Your task to perform on an android device: turn vacation reply on in the gmail app Image 0: 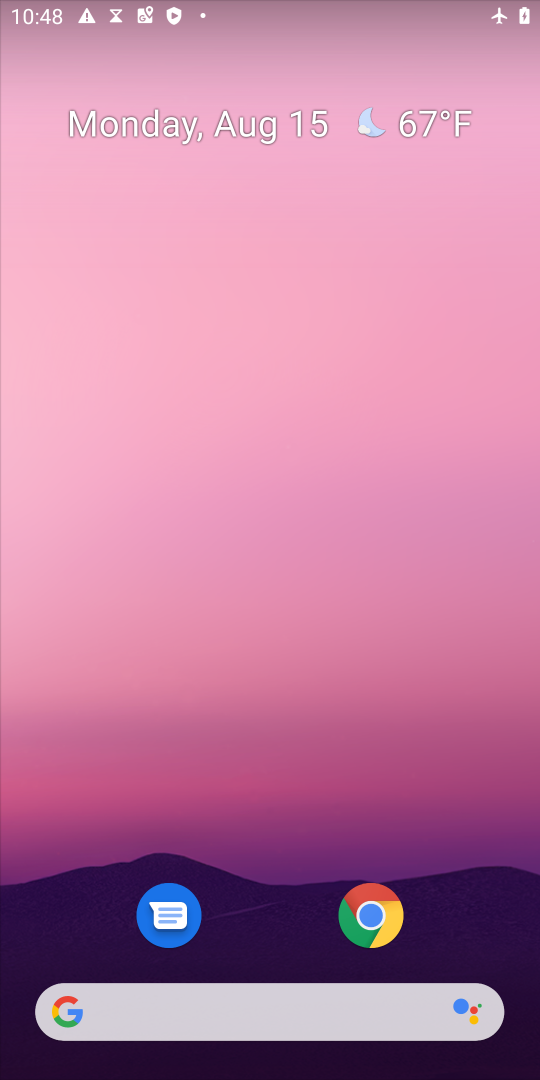
Step 0: press home button
Your task to perform on an android device: turn vacation reply on in the gmail app Image 1: 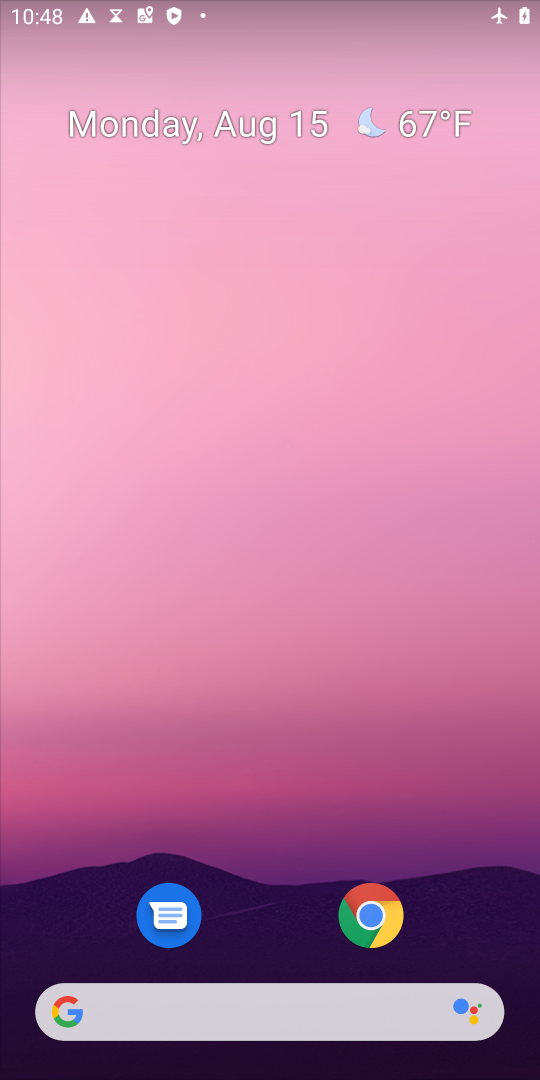
Step 1: drag from (261, 946) to (425, 166)
Your task to perform on an android device: turn vacation reply on in the gmail app Image 2: 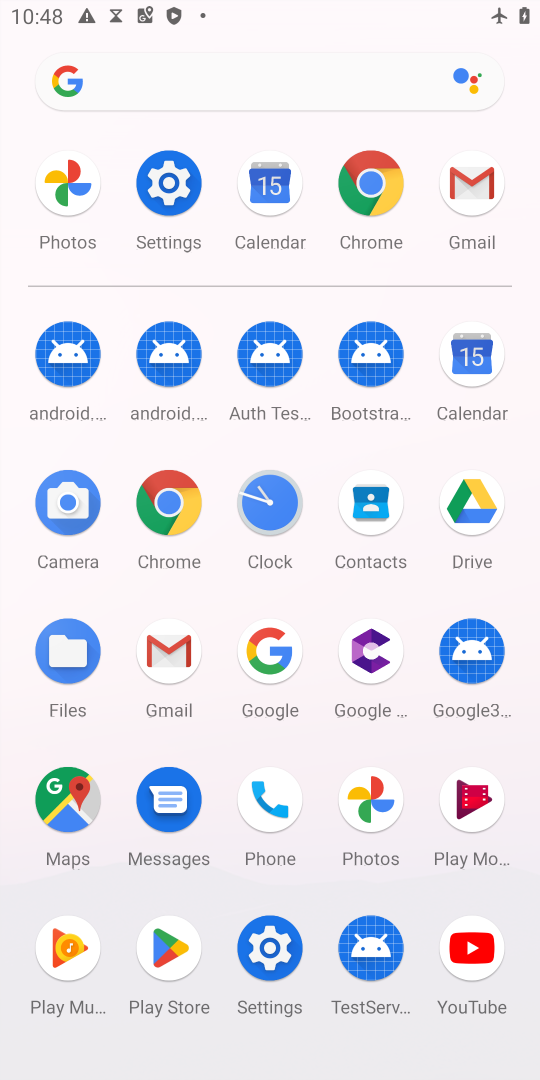
Step 2: click (492, 196)
Your task to perform on an android device: turn vacation reply on in the gmail app Image 3: 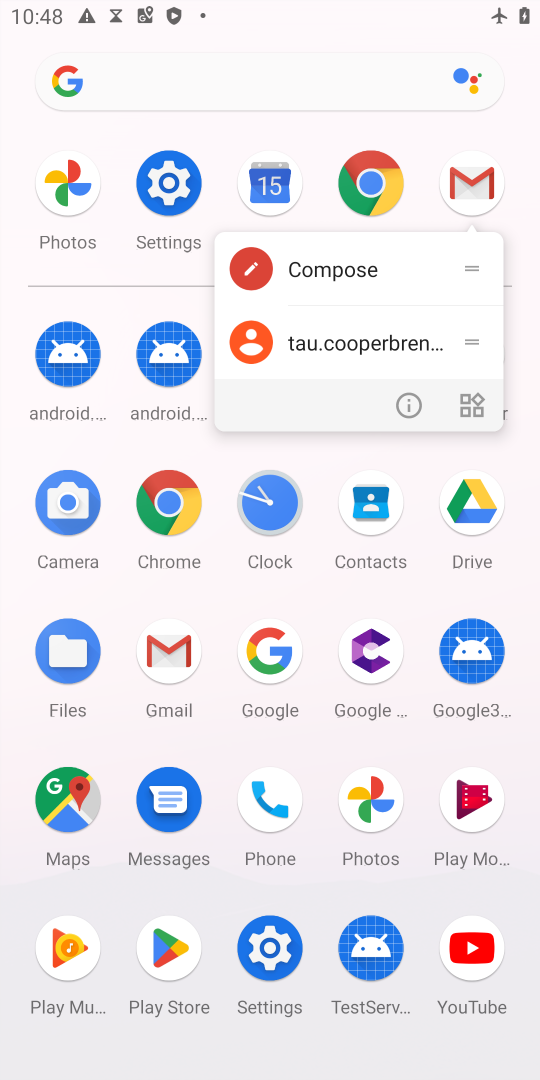
Step 3: click (492, 196)
Your task to perform on an android device: turn vacation reply on in the gmail app Image 4: 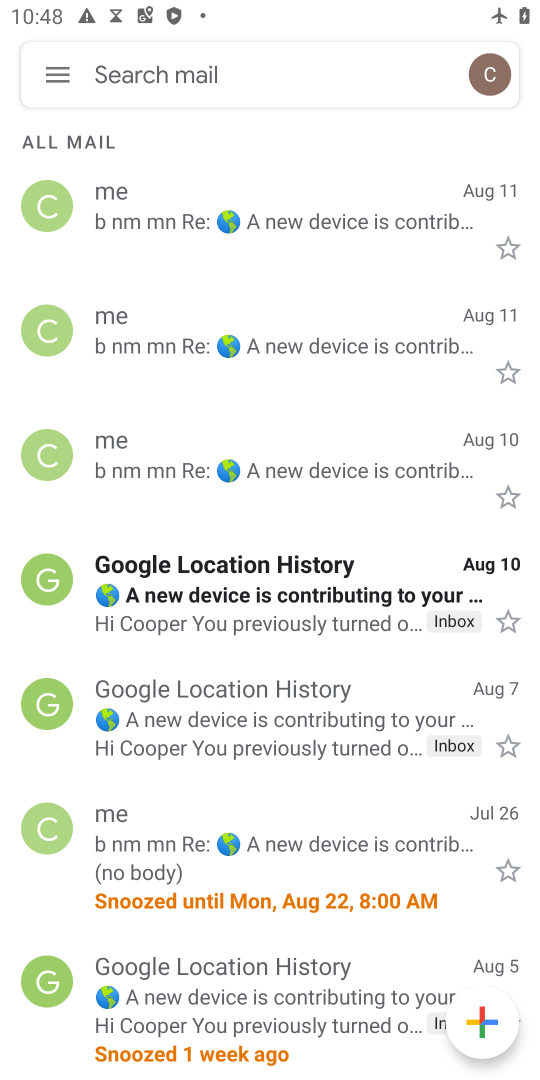
Step 4: click (67, 67)
Your task to perform on an android device: turn vacation reply on in the gmail app Image 5: 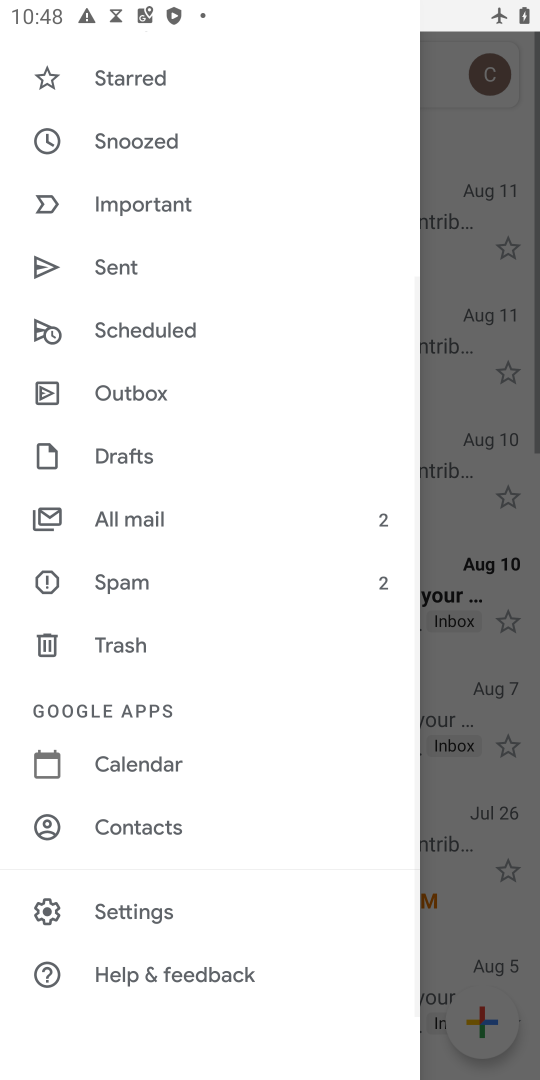
Step 5: click (131, 911)
Your task to perform on an android device: turn vacation reply on in the gmail app Image 6: 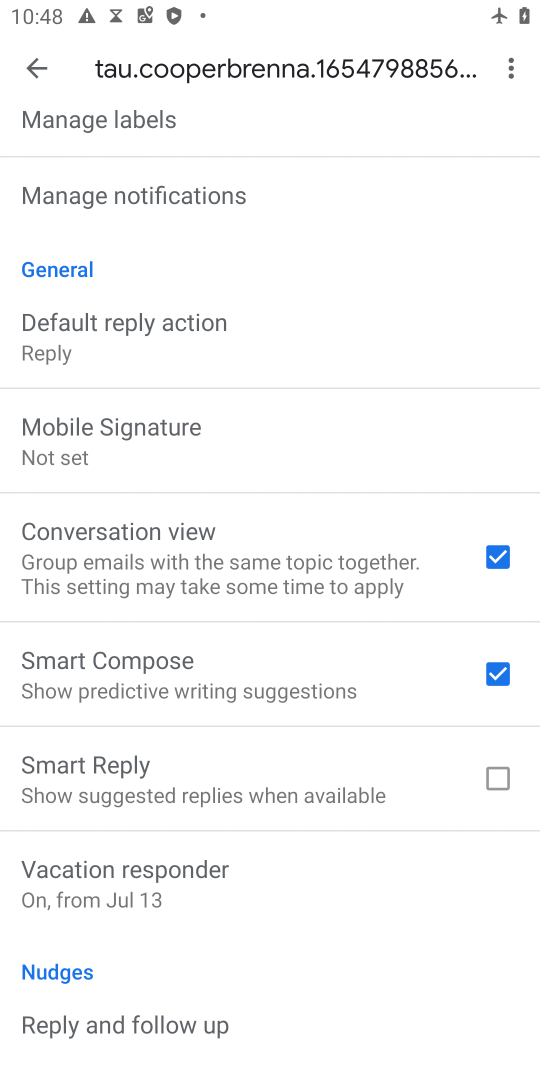
Step 6: click (105, 886)
Your task to perform on an android device: turn vacation reply on in the gmail app Image 7: 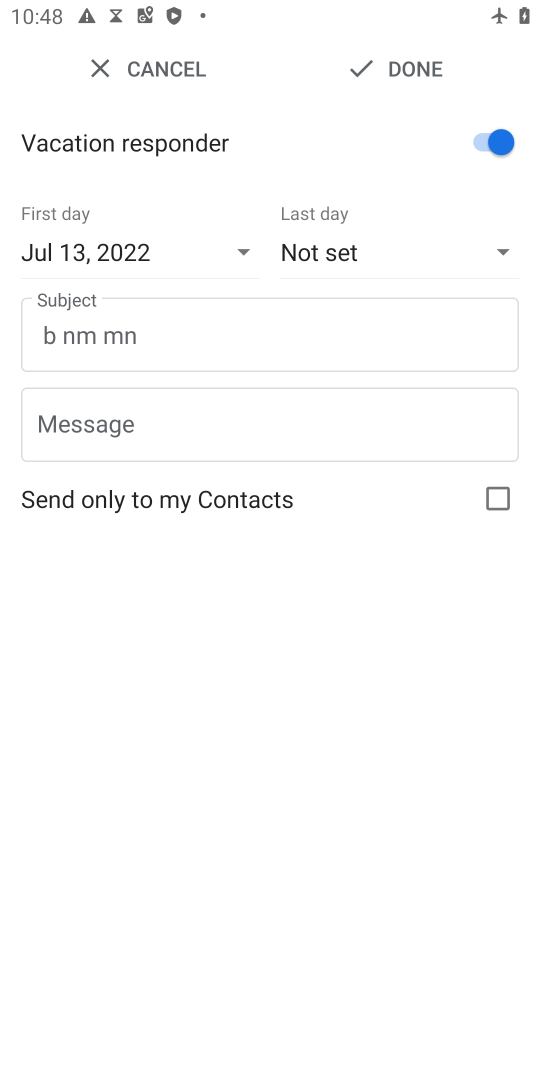
Step 7: task complete